Your task to perform on an android device: Go to ESPN.com Image 0: 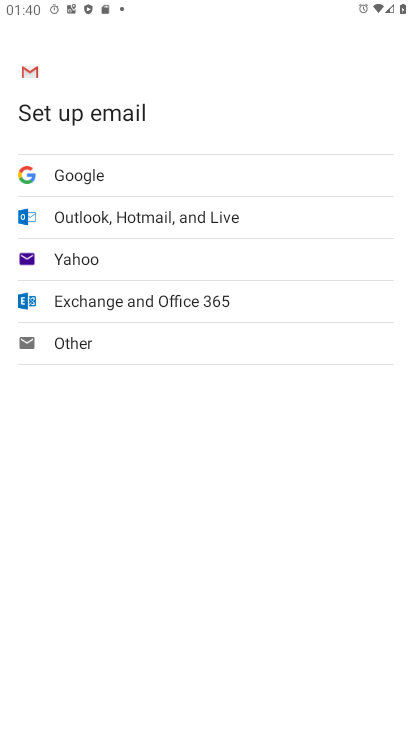
Step 0: press home button
Your task to perform on an android device: Go to ESPN.com Image 1: 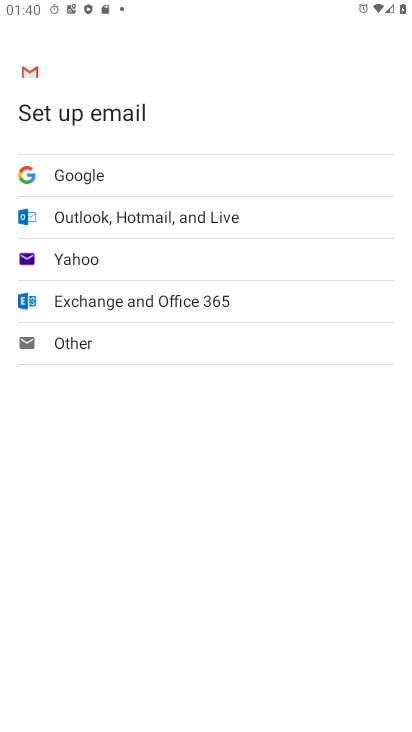
Step 1: press home button
Your task to perform on an android device: Go to ESPN.com Image 2: 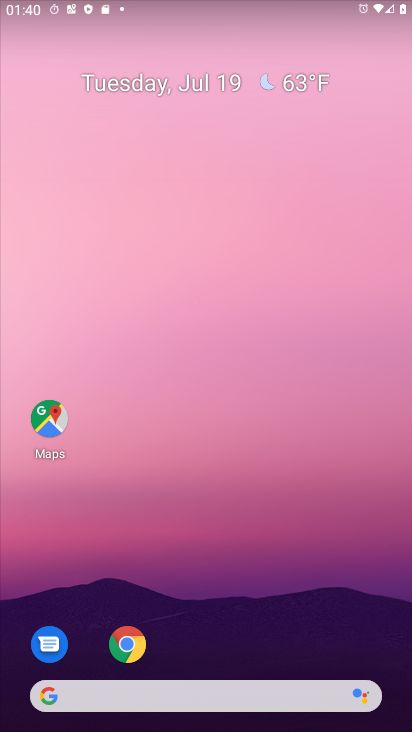
Step 2: click (122, 639)
Your task to perform on an android device: Go to ESPN.com Image 3: 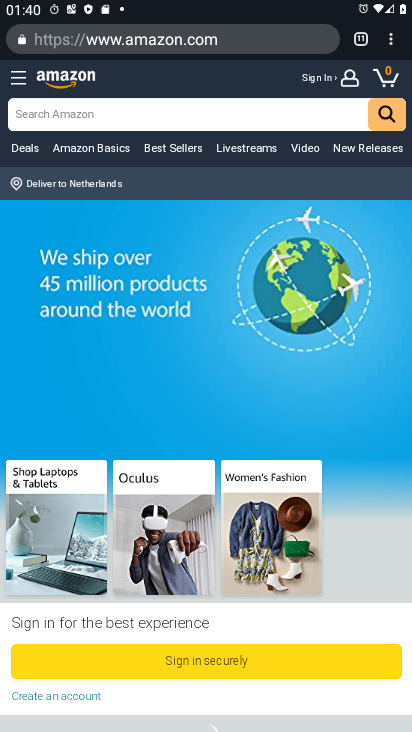
Step 3: click (390, 40)
Your task to perform on an android device: Go to ESPN.com Image 4: 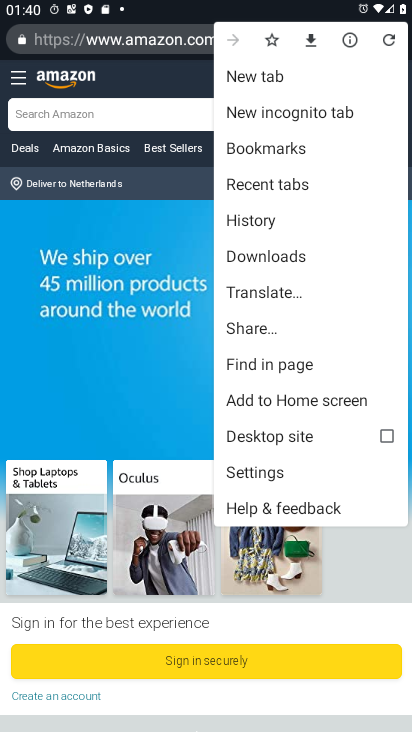
Step 4: click (261, 78)
Your task to perform on an android device: Go to ESPN.com Image 5: 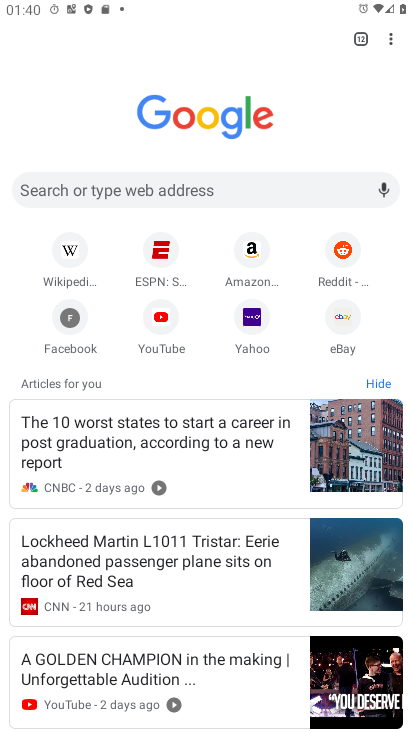
Step 5: click (155, 258)
Your task to perform on an android device: Go to ESPN.com Image 6: 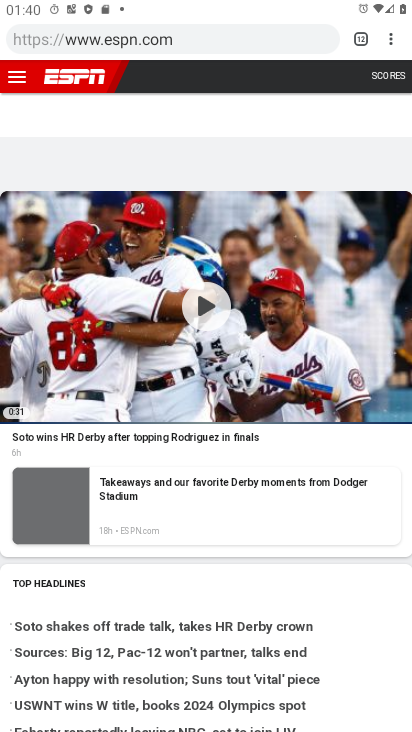
Step 6: task complete